Your task to perform on an android device: turn on notifications settings in the gmail app Image 0: 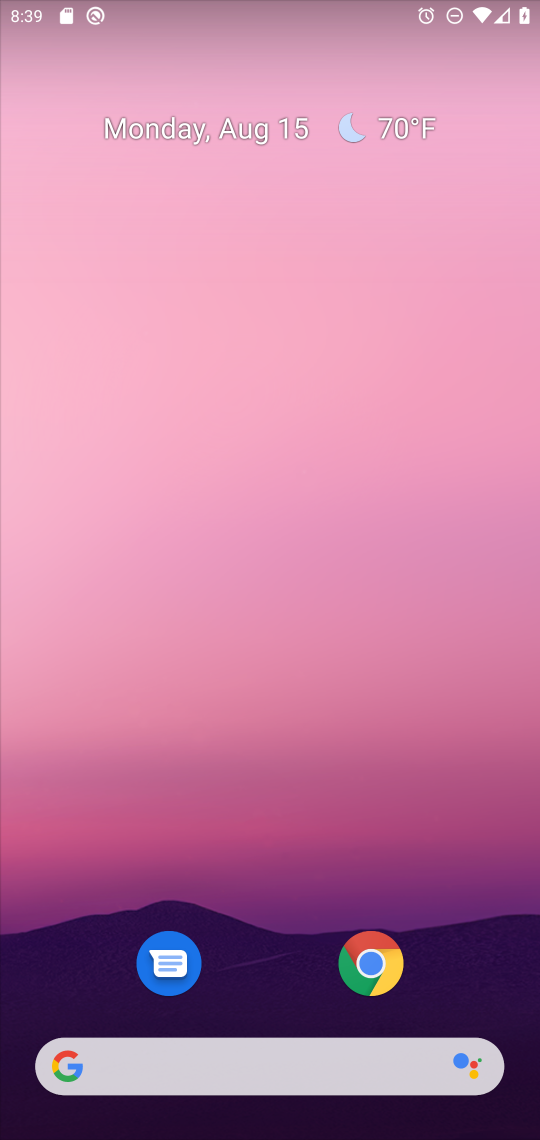
Step 0: drag from (278, 1012) to (62, 10)
Your task to perform on an android device: turn on notifications settings in the gmail app Image 1: 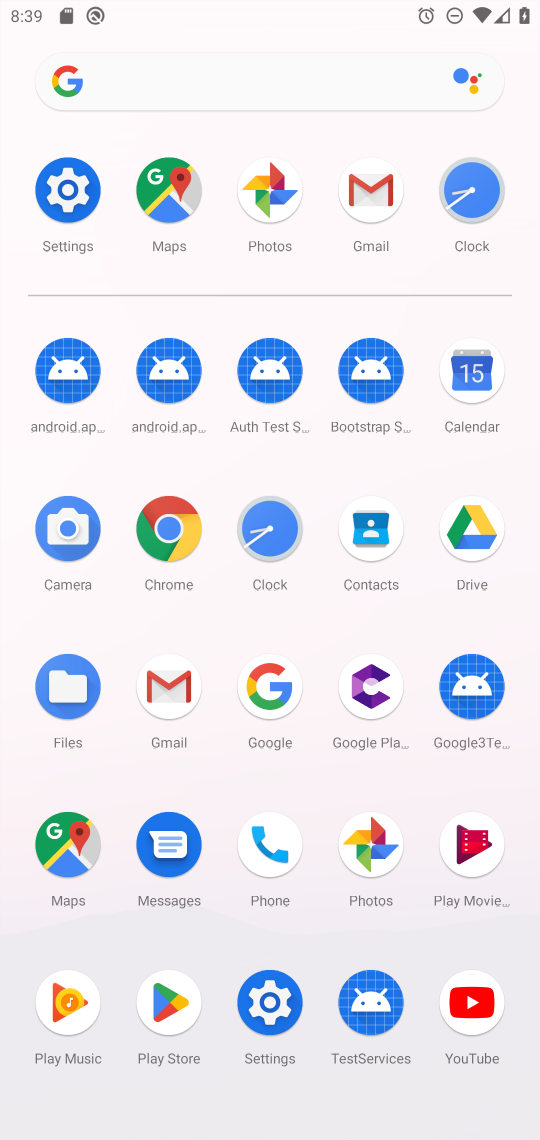
Step 1: click (34, 189)
Your task to perform on an android device: turn on notifications settings in the gmail app Image 2: 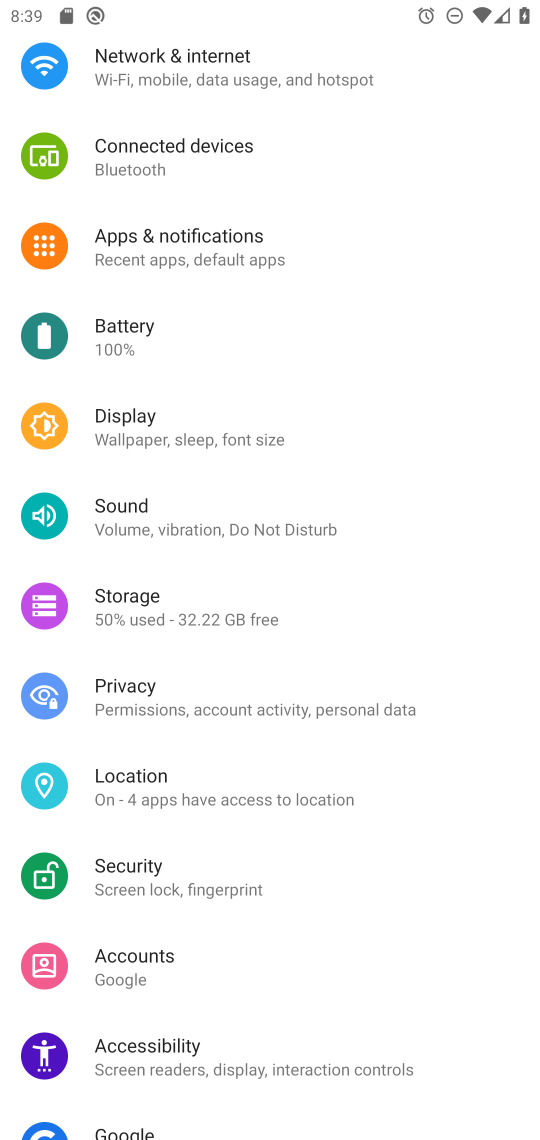
Step 2: click (119, 235)
Your task to perform on an android device: turn on notifications settings in the gmail app Image 3: 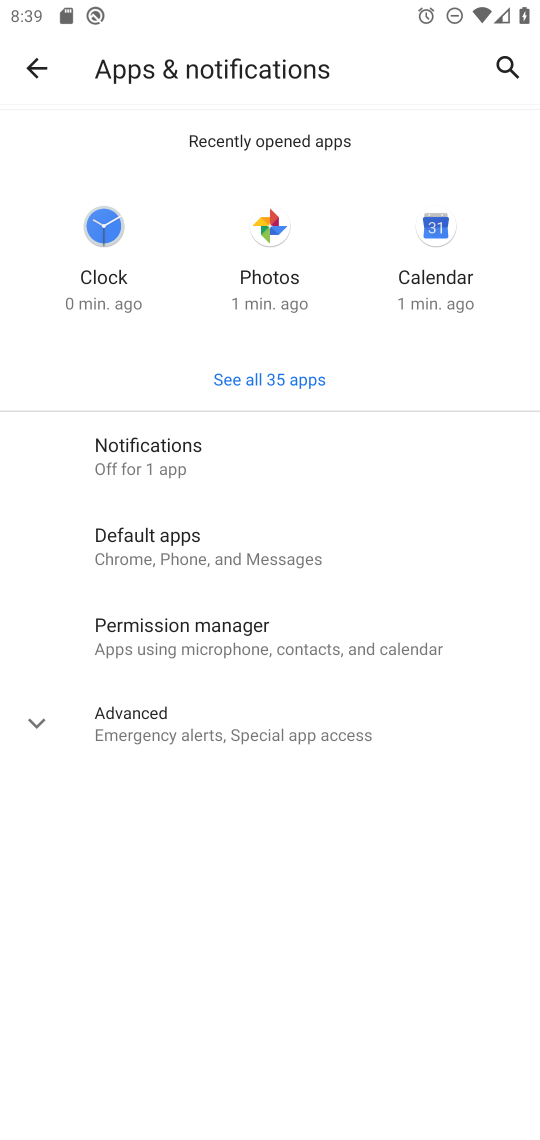
Step 3: click (265, 385)
Your task to perform on an android device: turn on notifications settings in the gmail app Image 4: 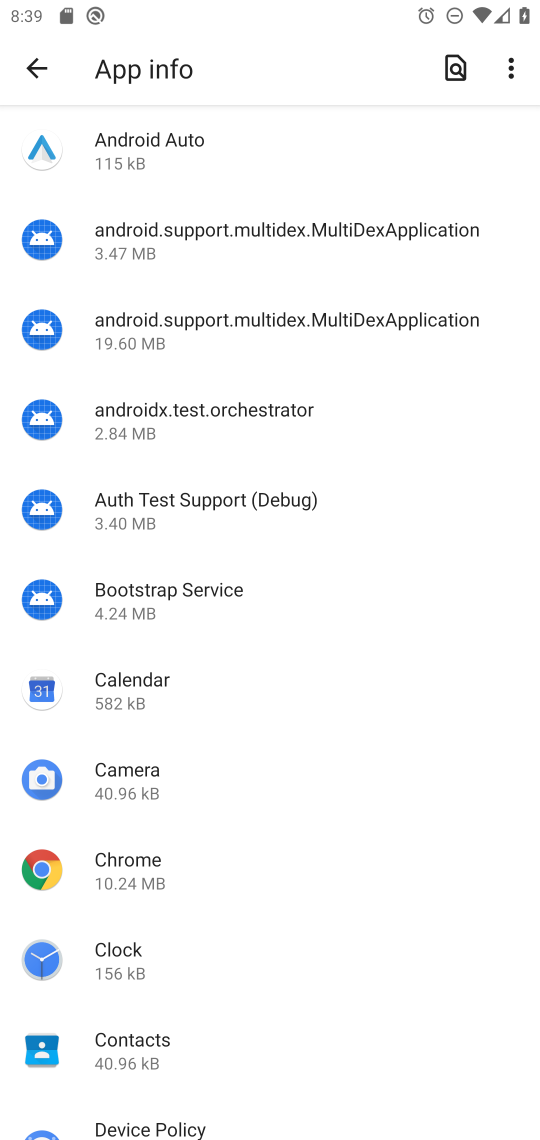
Step 4: drag from (137, 1090) to (158, 329)
Your task to perform on an android device: turn on notifications settings in the gmail app Image 5: 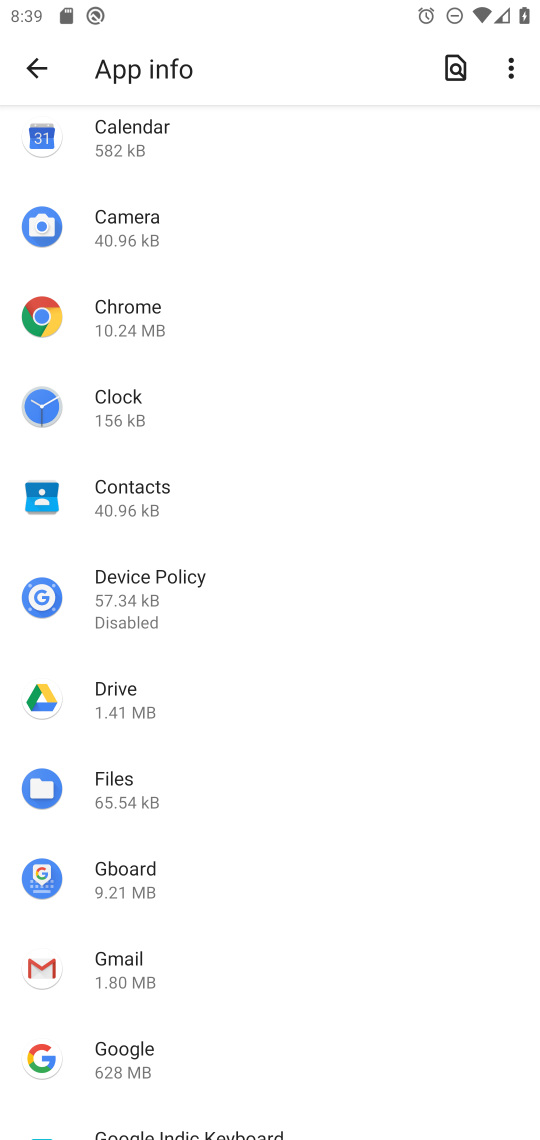
Step 5: click (117, 951)
Your task to perform on an android device: turn on notifications settings in the gmail app Image 6: 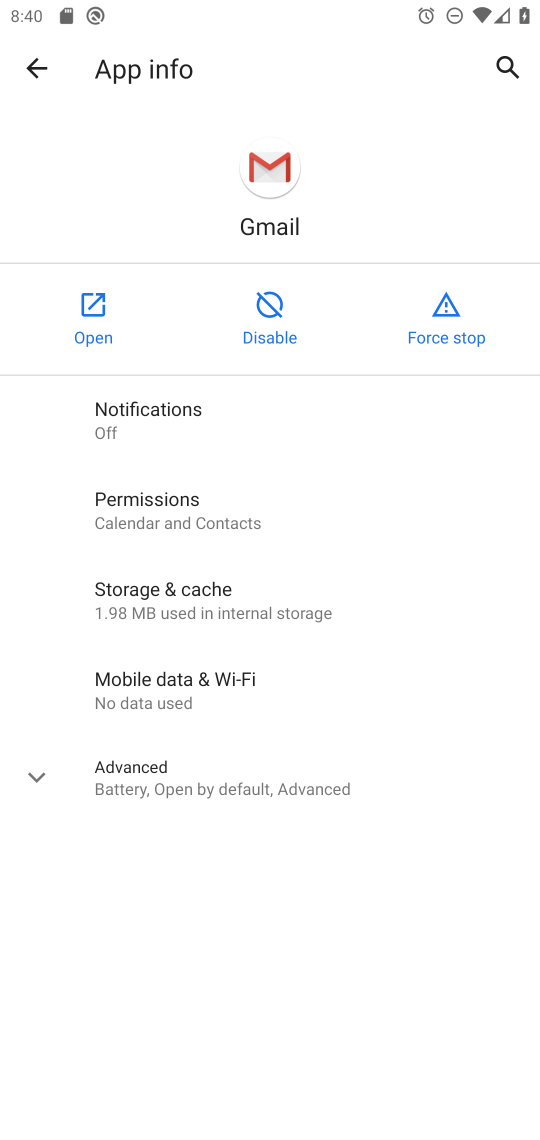
Step 6: click (224, 404)
Your task to perform on an android device: turn on notifications settings in the gmail app Image 7: 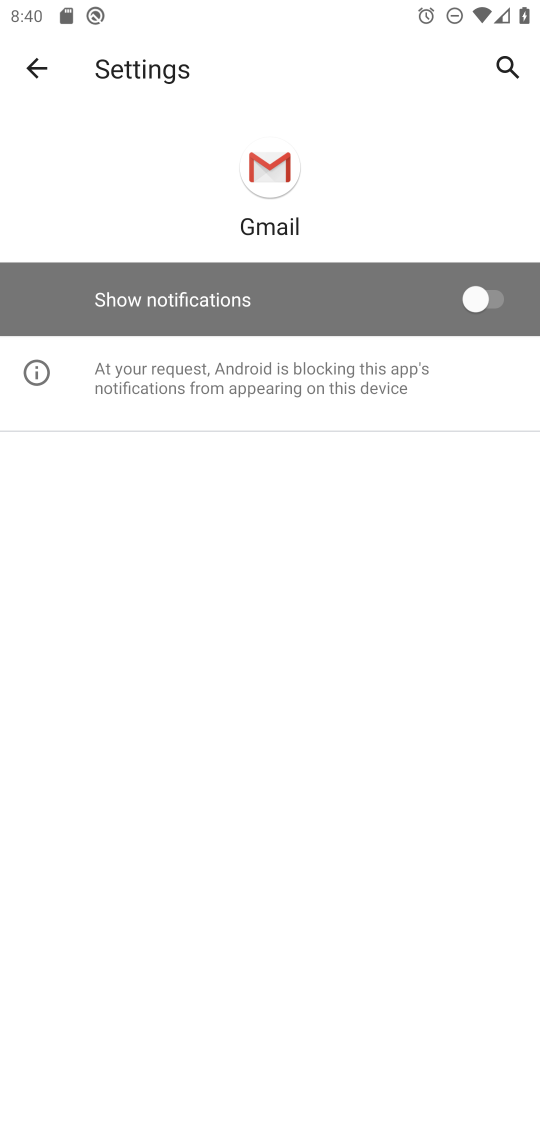
Step 7: click (487, 308)
Your task to perform on an android device: turn on notifications settings in the gmail app Image 8: 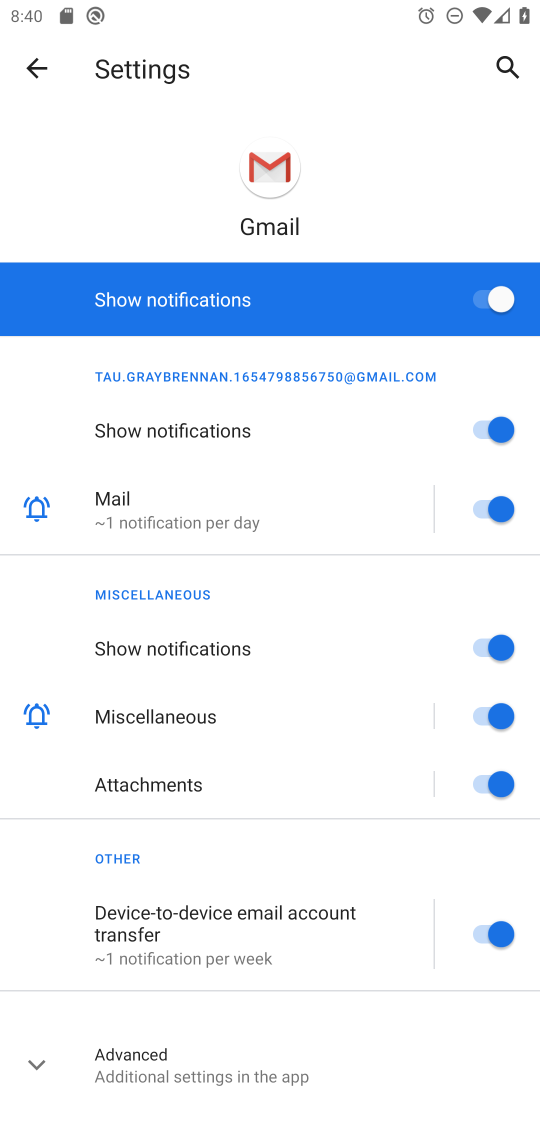
Step 8: task complete